Your task to perform on an android device: turn on the 24-hour format for clock Image 0: 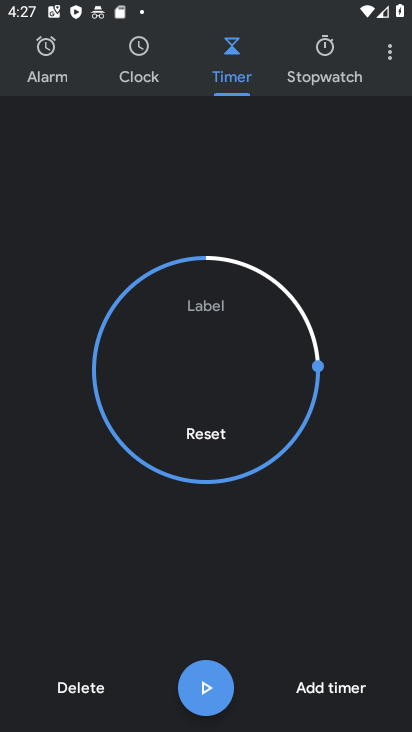
Step 0: click (28, 63)
Your task to perform on an android device: turn on the 24-hour format for clock Image 1: 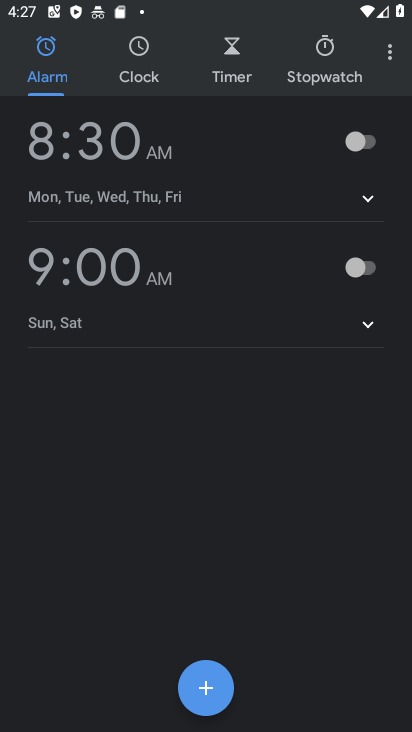
Step 1: press back button
Your task to perform on an android device: turn on the 24-hour format for clock Image 2: 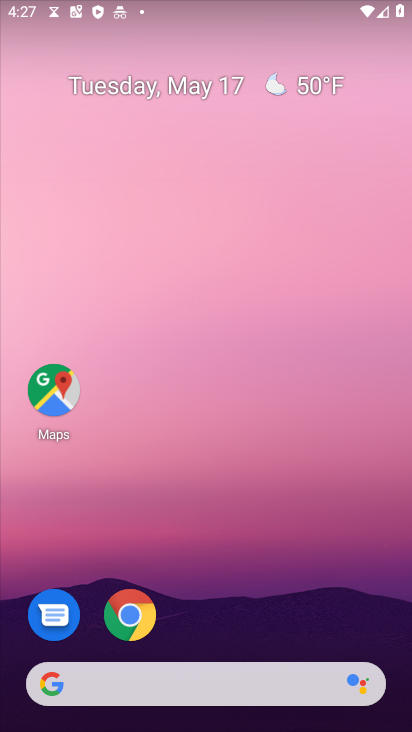
Step 2: drag from (271, 605) to (95, 28)
Your task to perform on an android device: turn on the 24-hour format for clock Image 3: 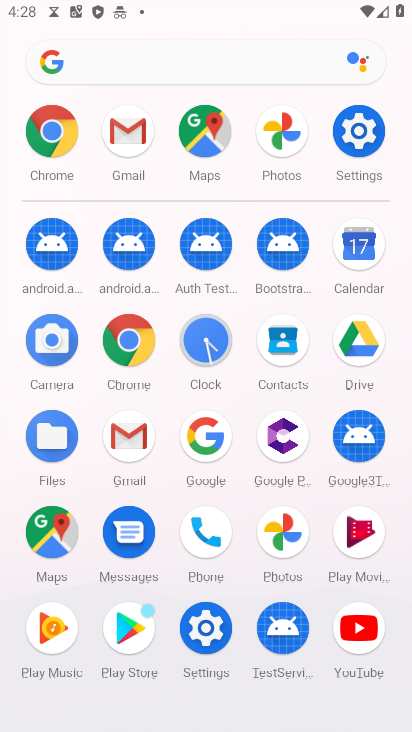
Step 3: click (205, 336)
Your task to perform on an android device: turn on the 24-hour format for clock Image 4: 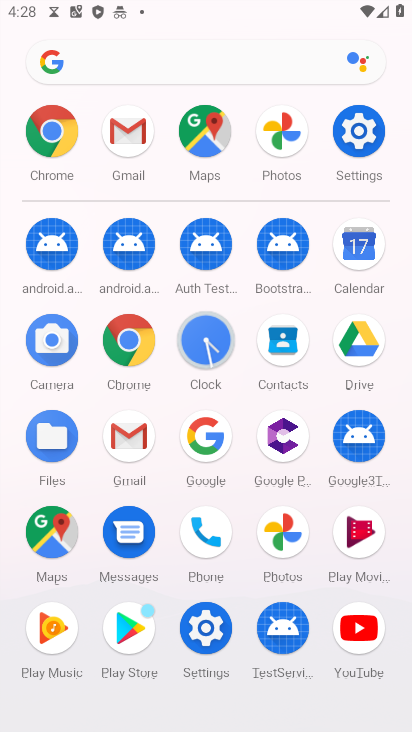
Step 4: click (205, 338)
Your task to perform on an android device: turn on the 24-hour format for clock Image 5: 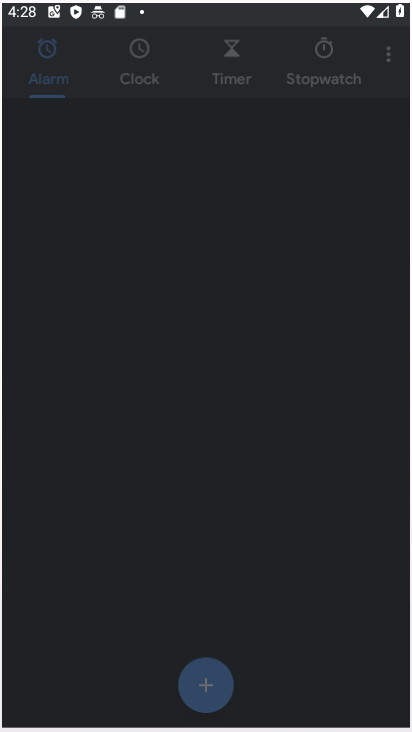
Step 5: click (207, 339)
Your task to perform on an android device: turn on the 24-hour format for clock Image 6: 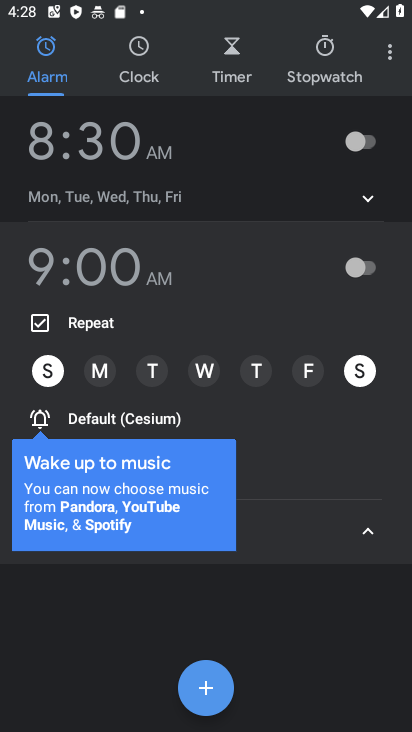
Step 6: click (383, 52)
Your task to perform on an android device: turn on the 24-hour format for clock Image 7: 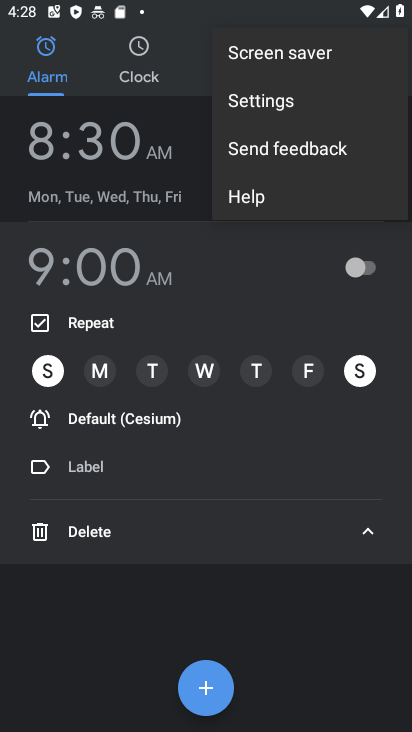
Step 7: click (254, 95)
Your task to perform on an android device: turn on the 24-hour format for clock Image 8: 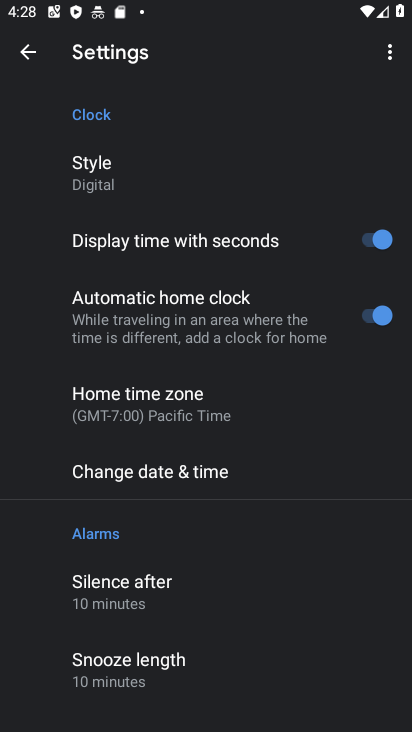
Step 8: click (145, 471)
Your task to perform on an android device: turn on the 24-hour format for clock Image 9: 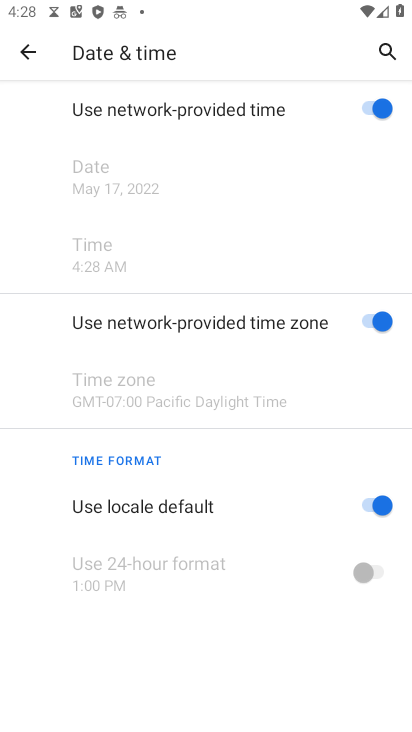
Step 9: click (382, 504)
Your task to perform on an android device: turn on the 24-hour format for clock Image 10: 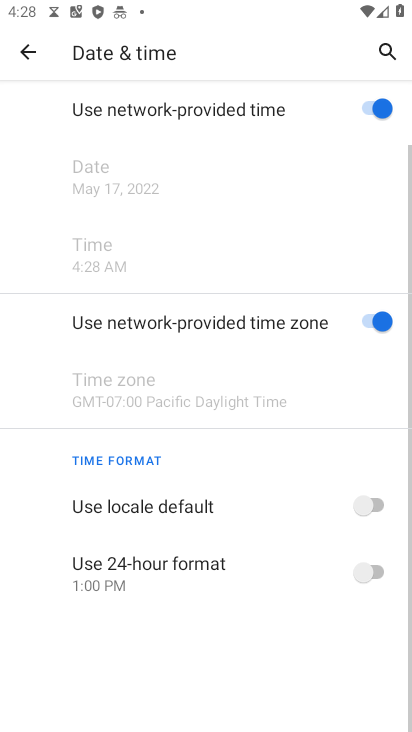
Step 10: click (370, 575)
Your task to perform on an android device: turn on the 24-hour format for clock Image 11: 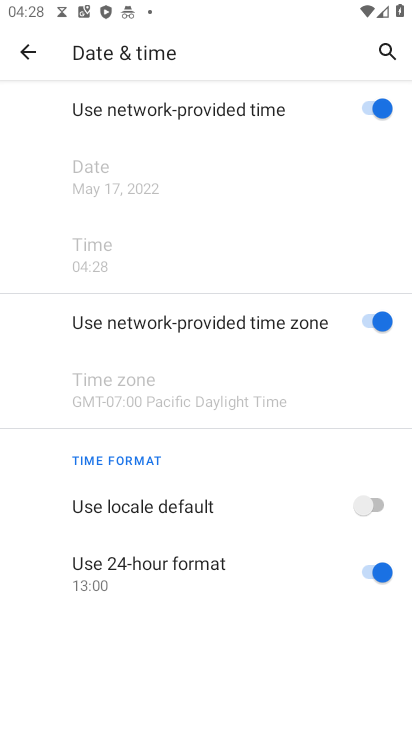
Step 11: task complete